Your task to perform on an android device: Play the last video I watched on Youtube Image 0: 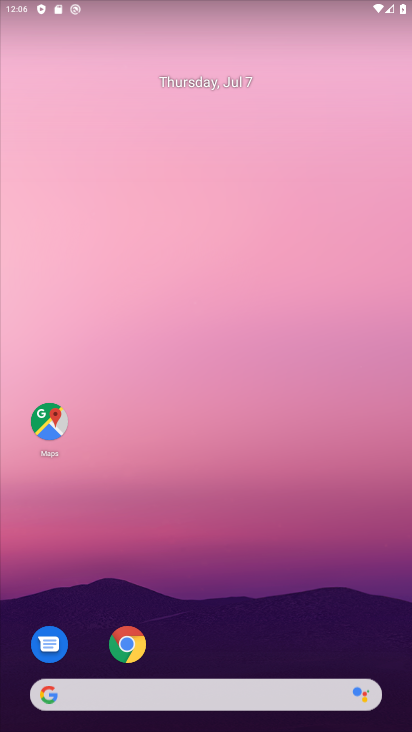
Step 0: drag from (393, 538) to (384, 17)
Your task to perform on an android device: Play the last video I watched on Youtube Image 1: 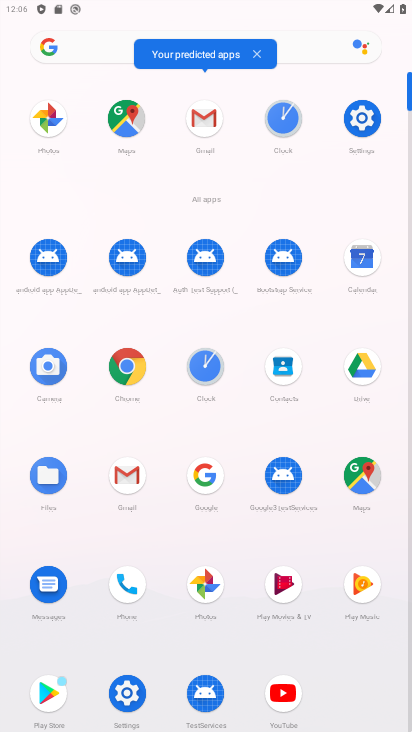
Step 1: click (275, 693)
Your task to perform on an android device: Play the last video I watched on Youtube Image 2: 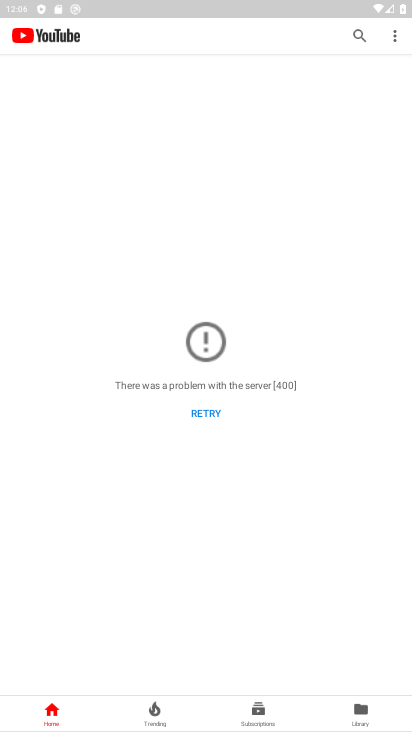
Step 2: press back button
Your task to perform on an android device: Play the last video I watched on Youtube Image 3: 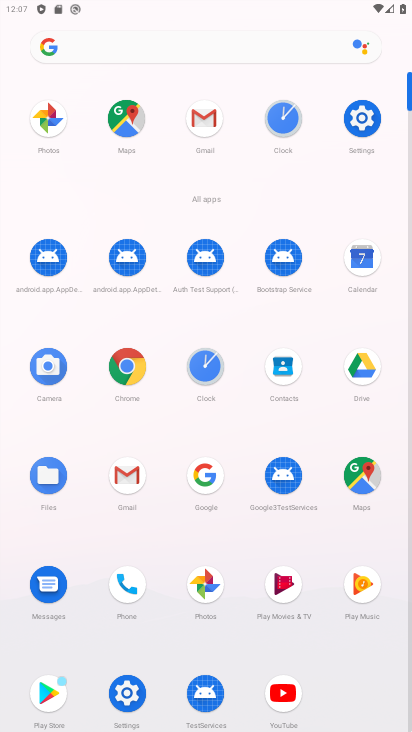
Step 3: click (268, 708)
Your task to perform on an android device: Play the last video I watched on Youtube Image 4: 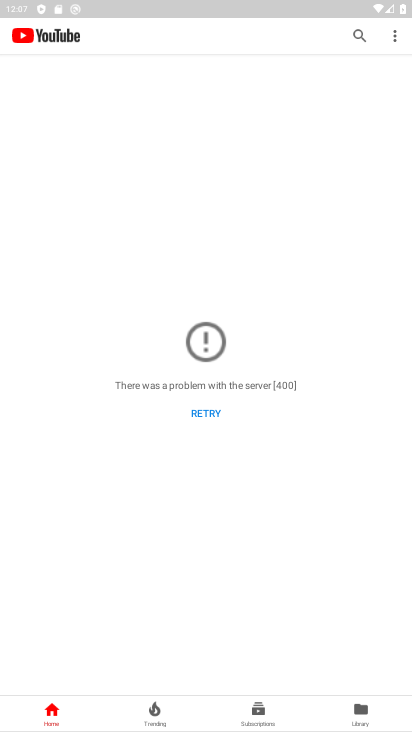
Step 4: task complete